Your task to perform on an android device: Search for Mexican restaurants on Maps Image 0: 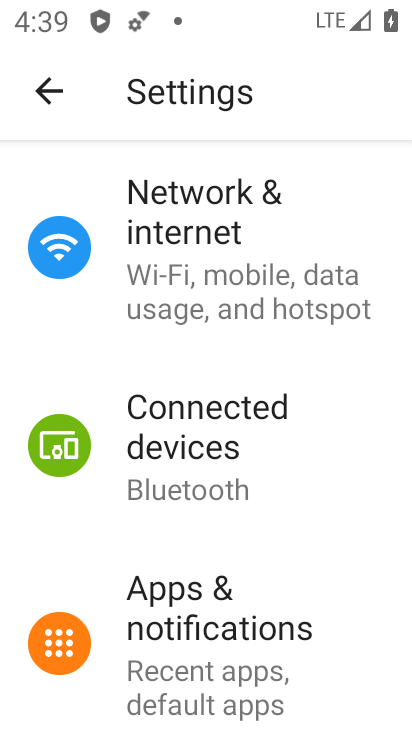
Step 0: press home button
Your task to perform on an android device: Search for Mexican restaurants on Maps Image 1: 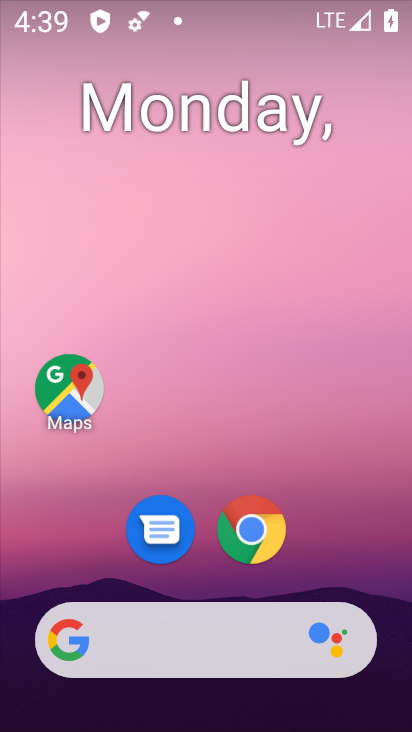
Step 1: click (76, 387)
Your task to perform on an android device: Search for Mexican restaurants on Maps Image 2: 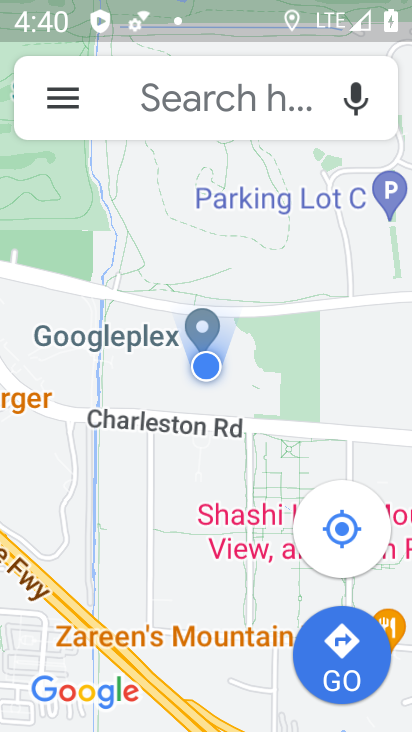
Step 2: click (181, 100)
Your task to perform on an android device: Search for Mexican restaurants on Maps Image 3: 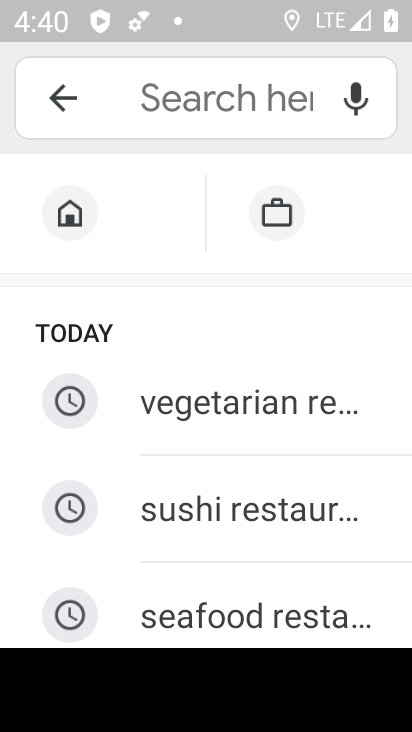
Step 3: drag from (283, 596) to (272, 201)
Your task to perform on an android device: Search for Mexican restaurants on Maps Image 4: 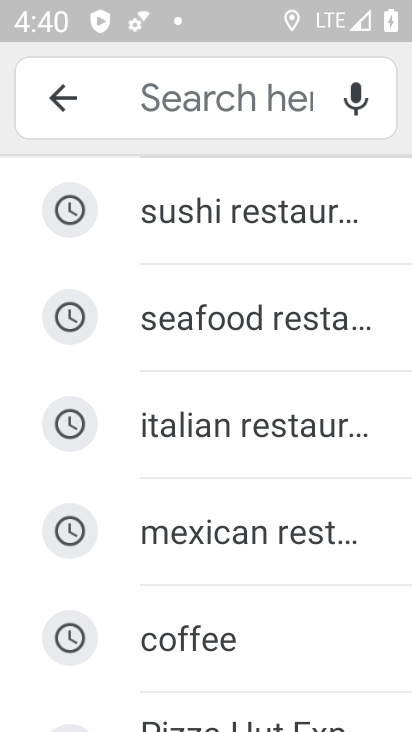
Step 4: click (335, 544)
Your task to perform on an android device: Search for Mexican restaurants on Maps Image 5: 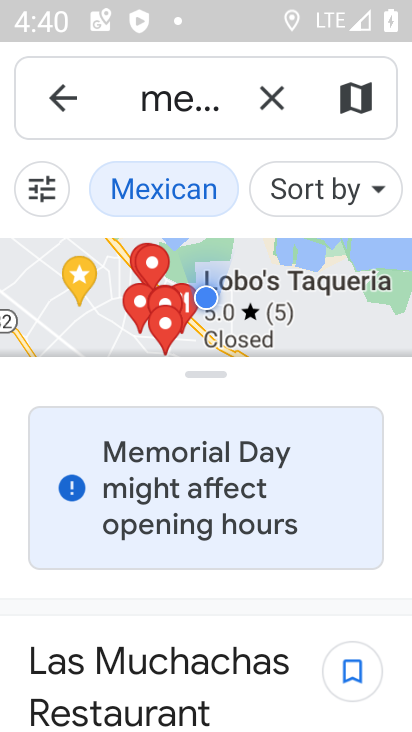
Step 5: task complete